Your task to perform on an android device: toggle airplane mode Image 0: 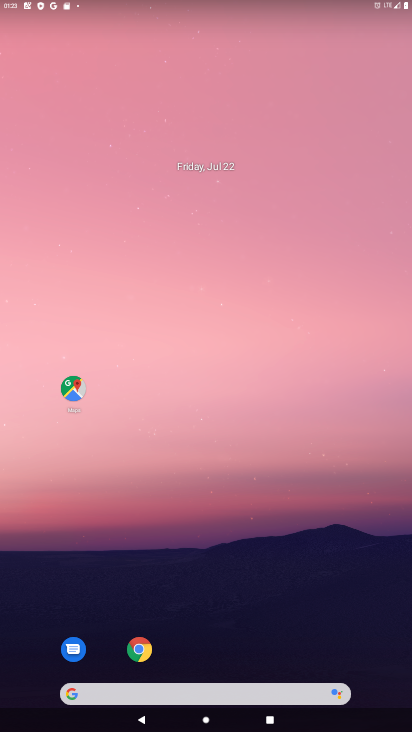
Step 0: drag from (345, 629) to (311, 82)
Your task to perform on an android device: toggle airplane mode Image 1: 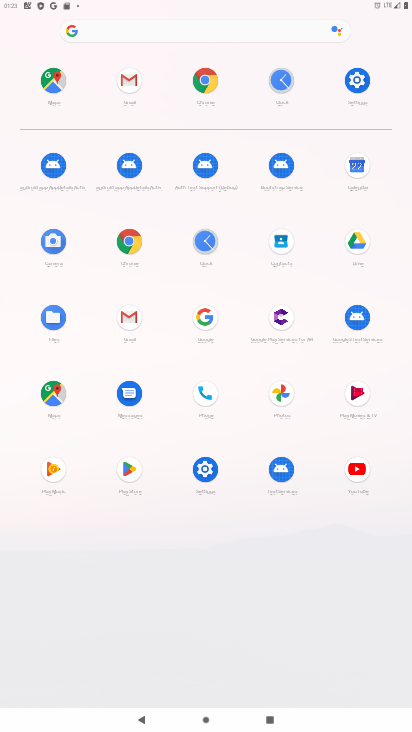
Step 1: click (362, 79)
Your task to perform on an android device: toggle airplane mode Image 2: 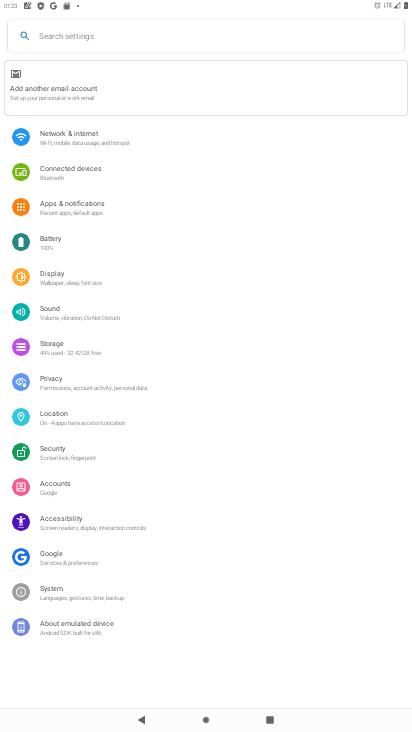
Step 2: click (83, 132)
Your task to perform on an android device: toggle airplane mode Image 3: 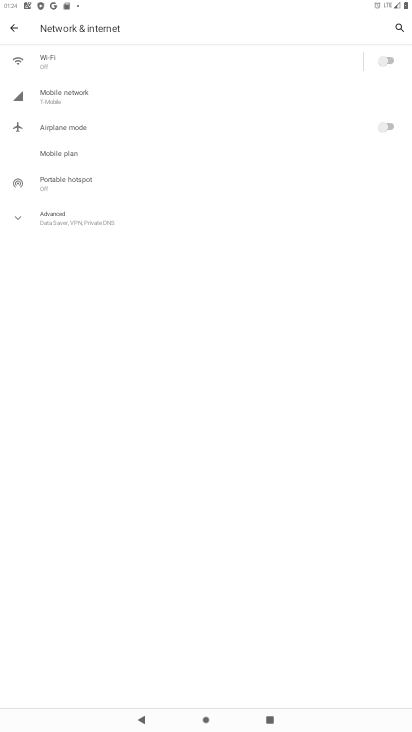
Step 3: click (389, 126)
Your task to perform on an android device: toggle airplane mode Image 4: 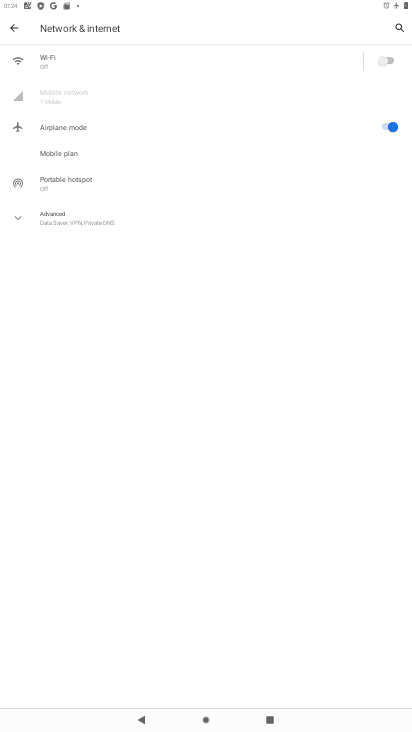
Step 4: task complete